Your task to perform on an android device: refresh tabs in the chrome app Image 0: 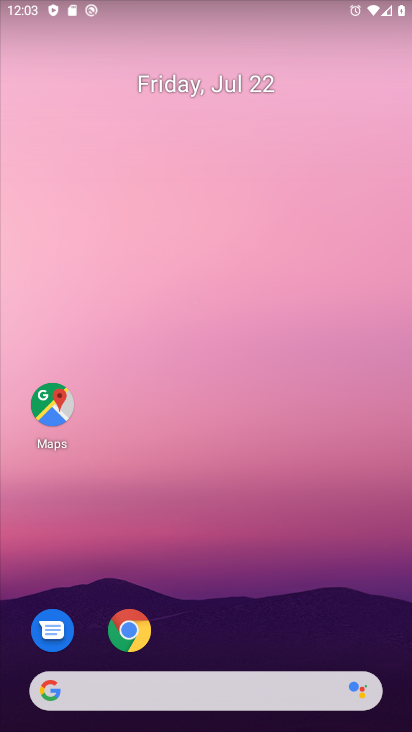
Step 0: click (138, 632)
Your task to perform on an android device: refresh tabs in the chrome app Image 1: 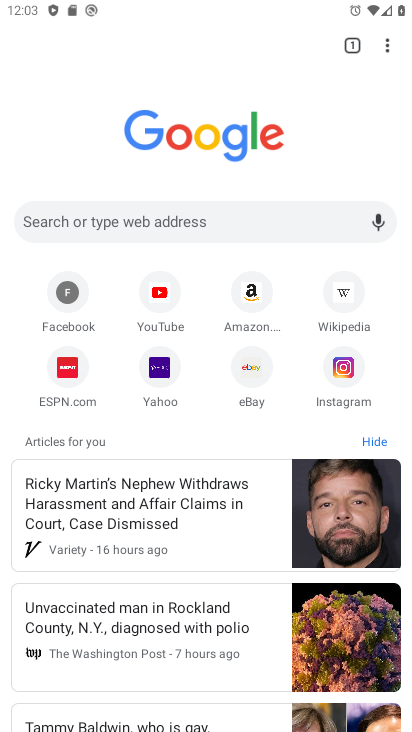
Step 1: click (389, 47)
Your task to perform on an android device: refresh tabs in the chrome app Image 2: 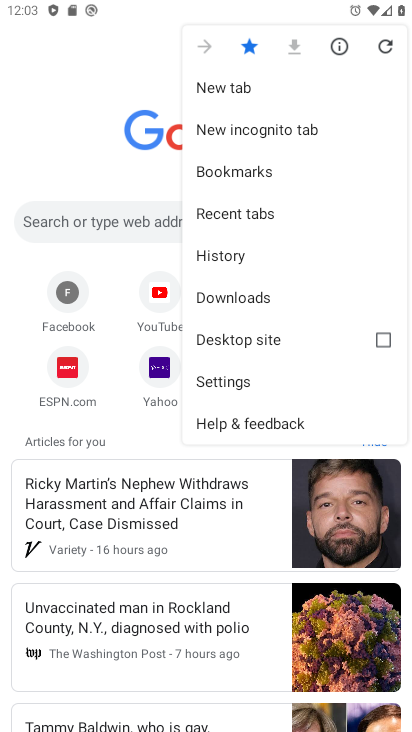
Step 2: click (383, 44)
Your task to perform on an android device: refresh tabs in the chrome app Image 3: 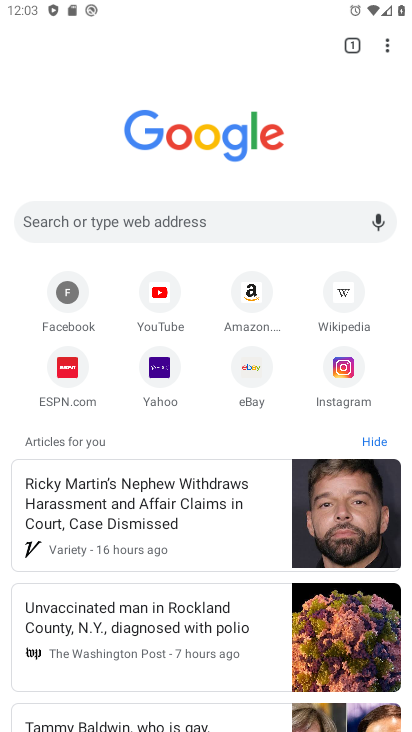
Step 3: task complete